Your task to perform on an android device: show emergency info Image 0: 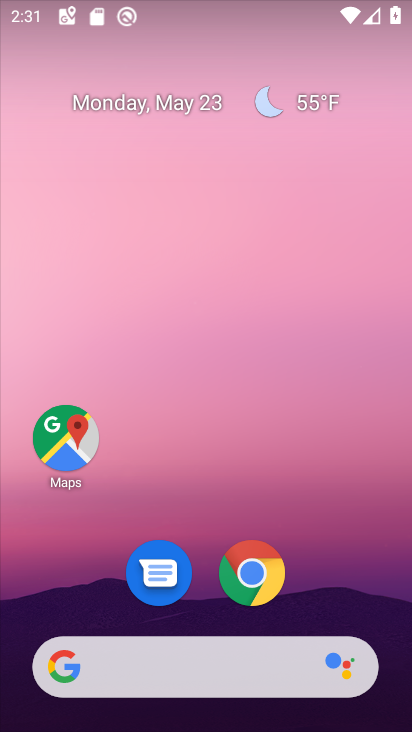
Step 0: drag from (365, 558) to (293, 65)
Your task to perform on an android device: show emergency info Image 1: 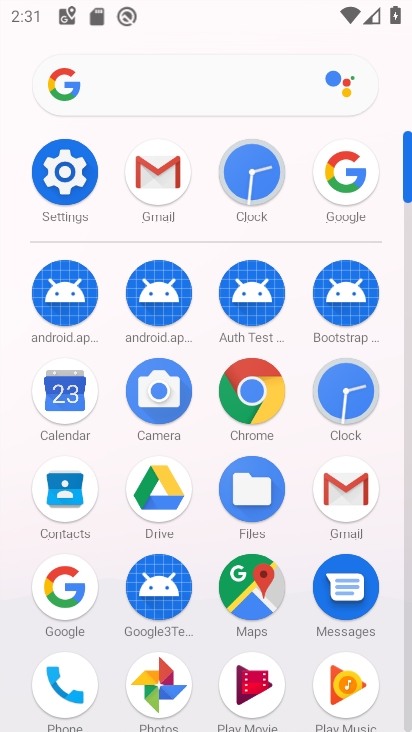
Step 1: click (66, 181)
Your task to perform on an android device: show emergency info Image 2: 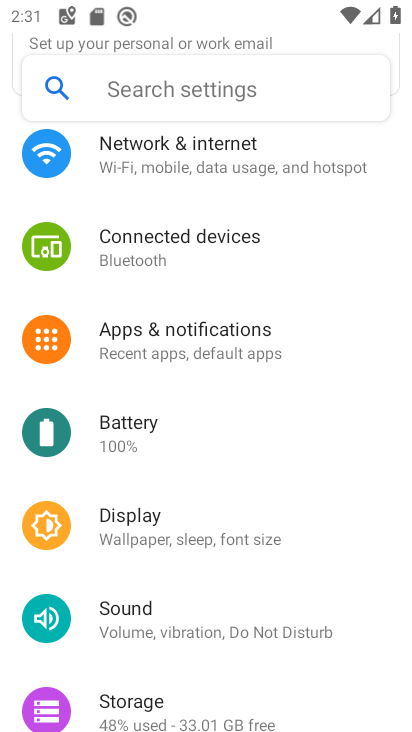
Step 2: drag from (217, 661) to (191, 229)
Your task to perform on an android device: show emergency info Image 3: 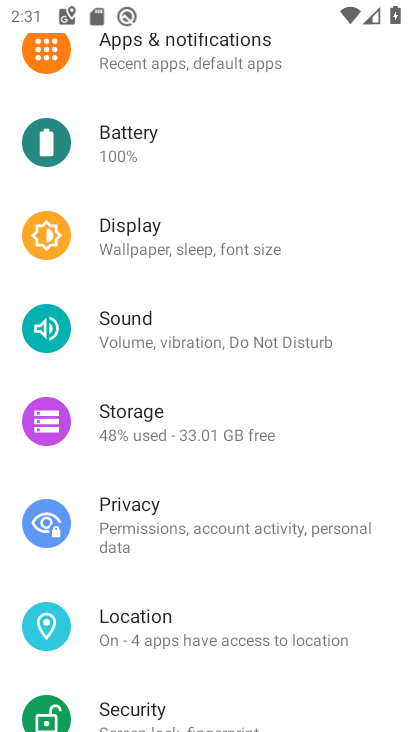
Step 3: drag from (224, 646) to (228, 143)
Your task to perform on an android device: show emergency info Image 4: 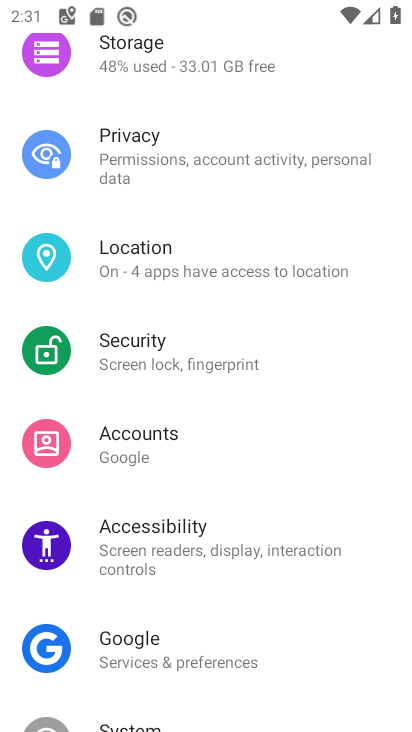
Step 4: drag from (235, 670) to (249, 130)
Your task to perform on an android device: show emergency info Image 5: 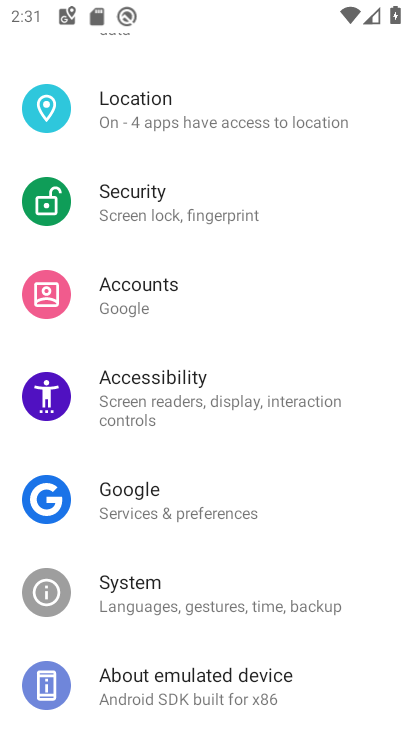
Step 5: click (208, 694)
Your task to perform on an android device: show emergency info Image 6: 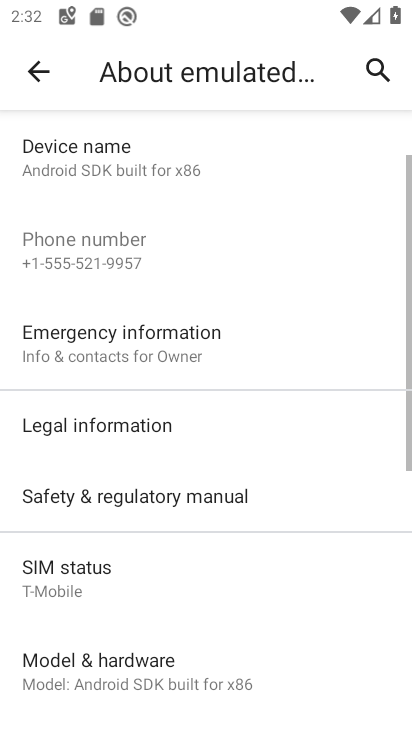
Step 6: click (182, 338)
Your task to perform on an android device: show emergency info Image 7: 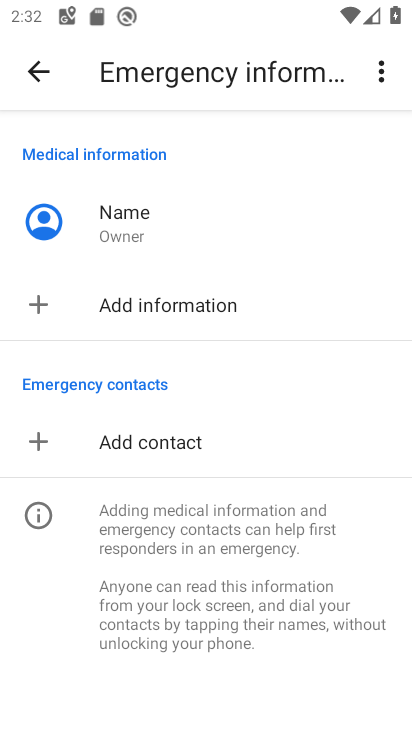
Step 7: task complete